Your task to perform on an android device: Search for seafood restaurants on Google Maps Image 0: 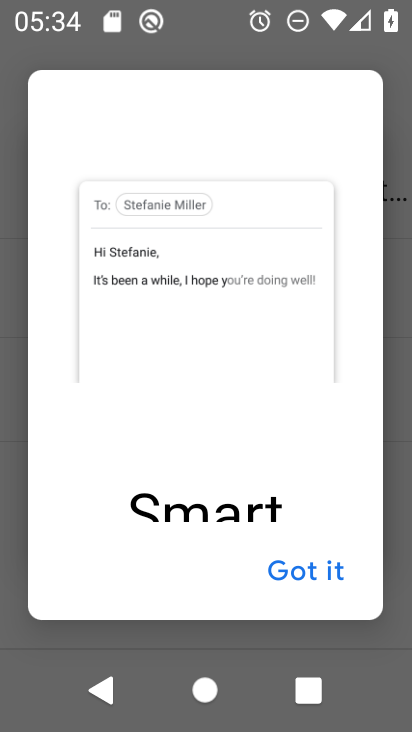
Step 0: press home button
Your task to perform on an android device: Search for seafood restaurants on Google Maps Image 1: 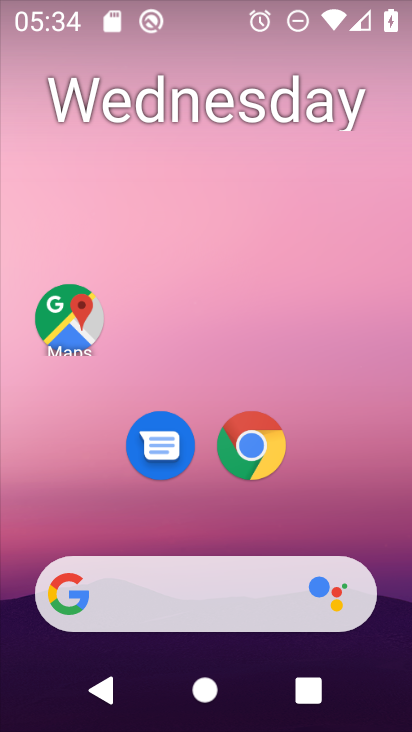
Step 1: click (89, 345)
Your task to perform on an android device: Search for seafood restaurants on Google Maps Image 2: 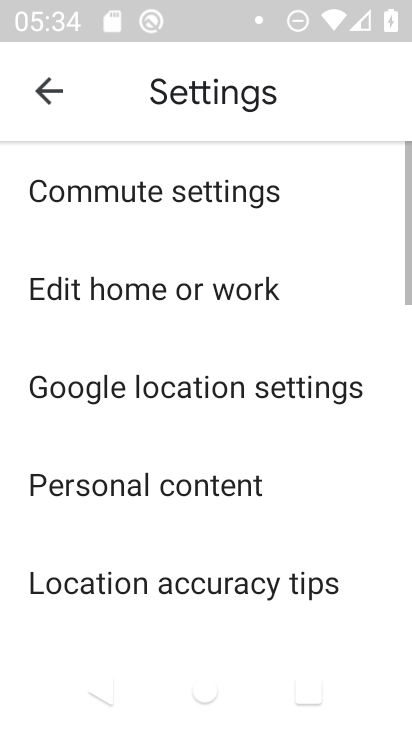
Step 2: click (57, 88)
Your task to perform on an android device: Search for seafood restaurants on Google Maps Image 3: 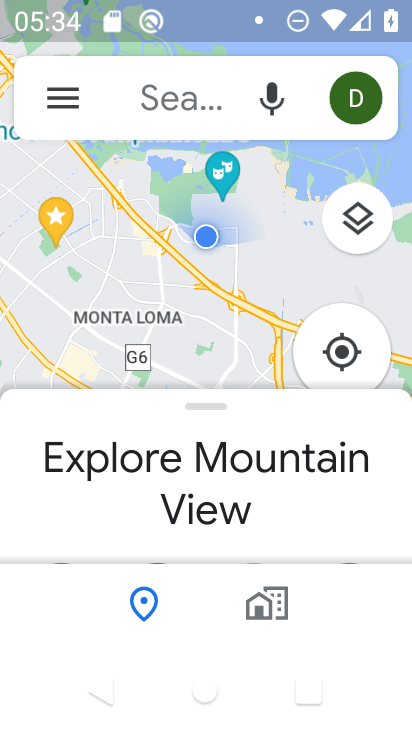
Step 3: click (135, 98)
Your task to perform on an android device: Search for seafood restaurants on Google Maps Image 4: 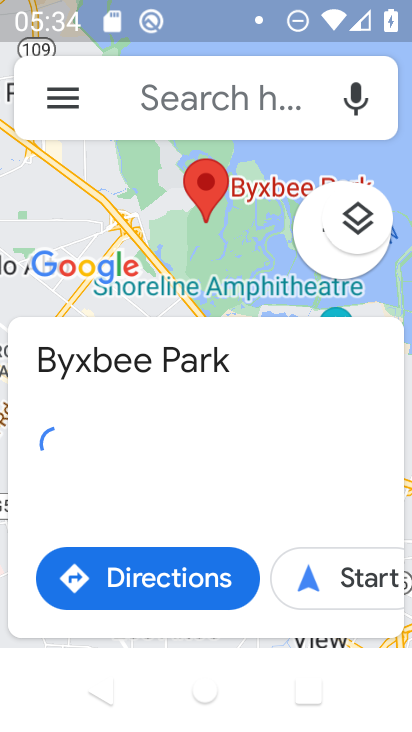
Step 4: click (170, 96)
Your task to perform on an android device: Search for seafood restaurants on Google Maps Image 5: 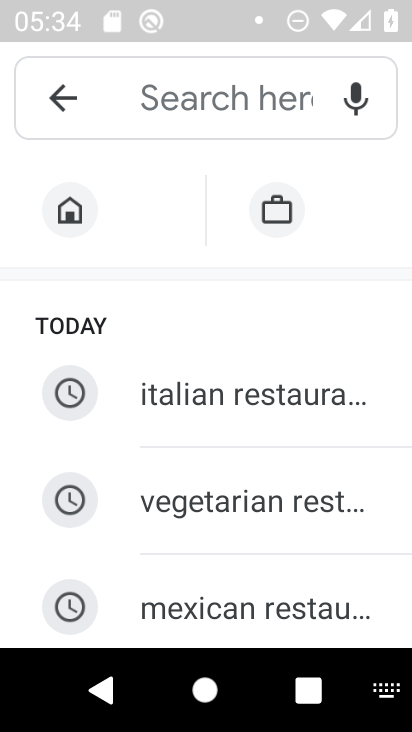
Step 5: type "seafood restaurant"
Your task to perform on an android device: Search for seafood restaurants on Google Maps Image 6: 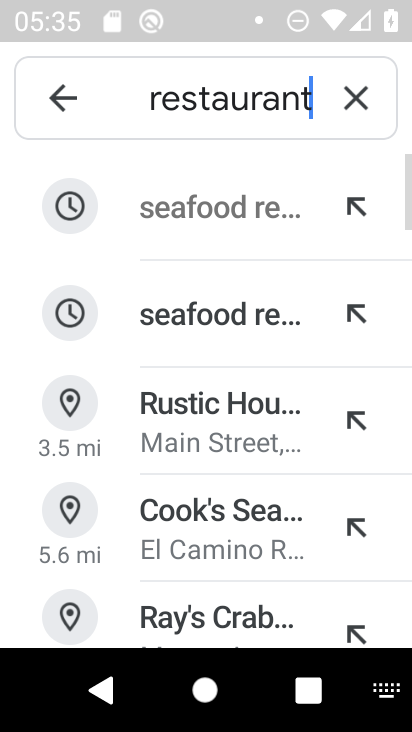
Step 6: click (285, 211)
Your task to perform on an android device: Search for seafood restaurants on Google Maps Image 7: 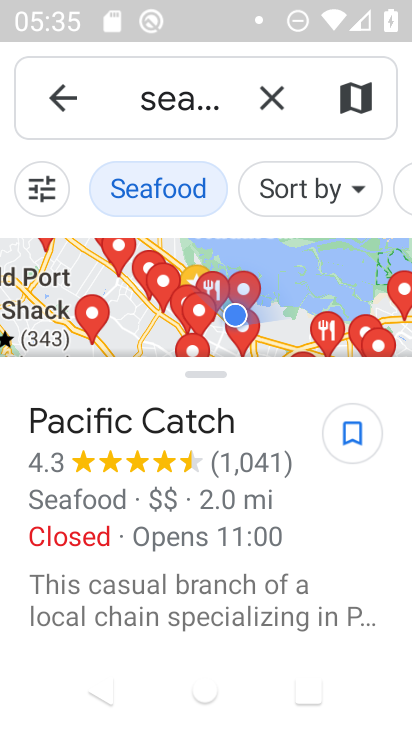
Step 7: task complete